Your task to perform on an android device: open chrome and create a bookmark for the current page Image 0: 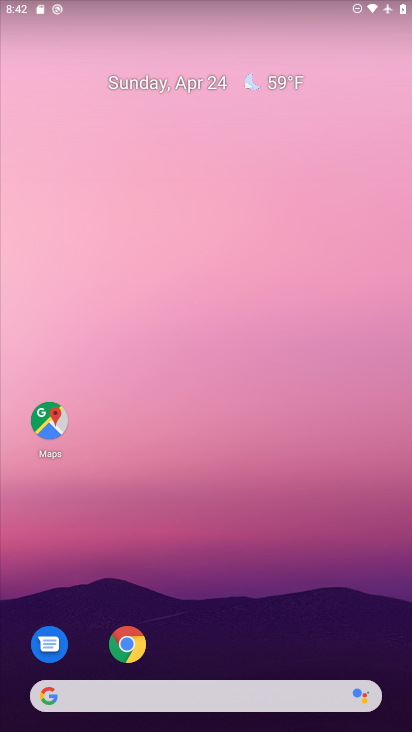
Step 0: click (186, 79)
Your task to perform on an android device: open chrome and create a bookmark for the current page Image 1: 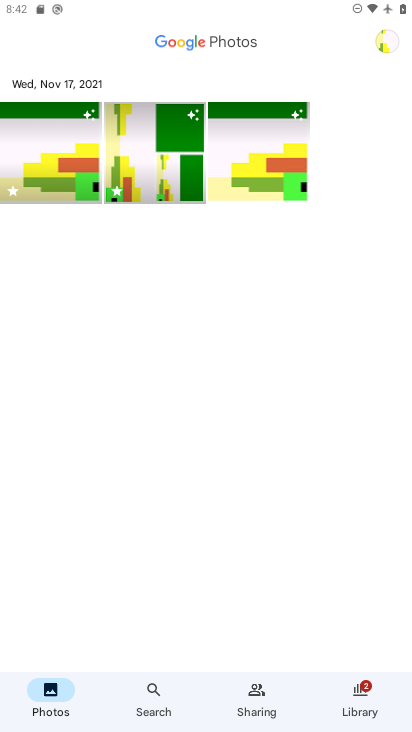
Step 1: press home button
Your task to perform on an android device: open chrome and create a bookmark for the current page Image 2: 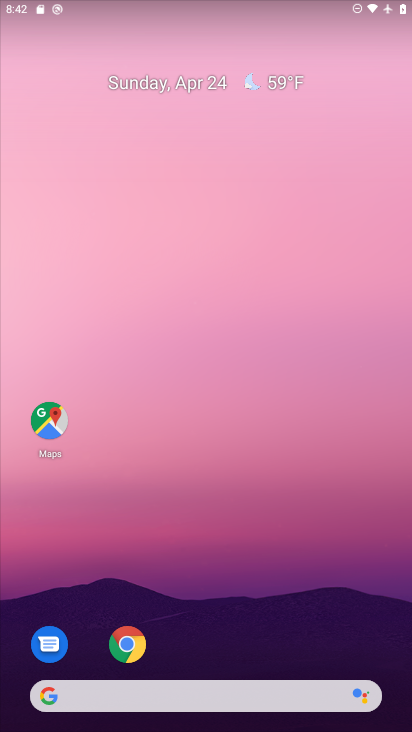
Step 2: drag from (192, 257) to (198, 99)
Your task to perform on an android device: open chrome and create a bookmark for the current page Image 3: 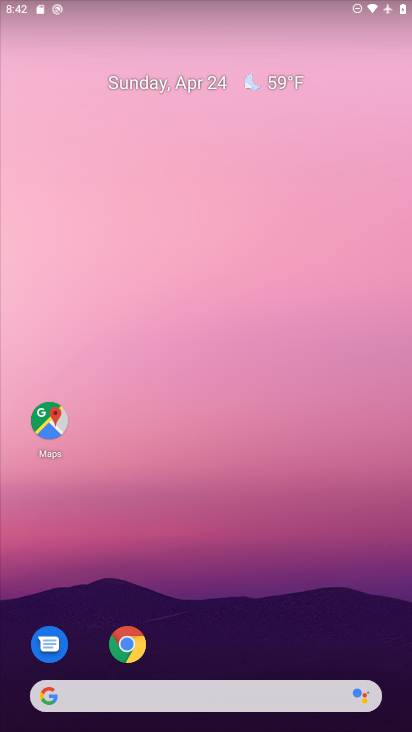
Step 3: drag from (237, 660) to (238, 59)
Your task to perform on an android device: open chrome and create a bookmark for the current page Image 4: 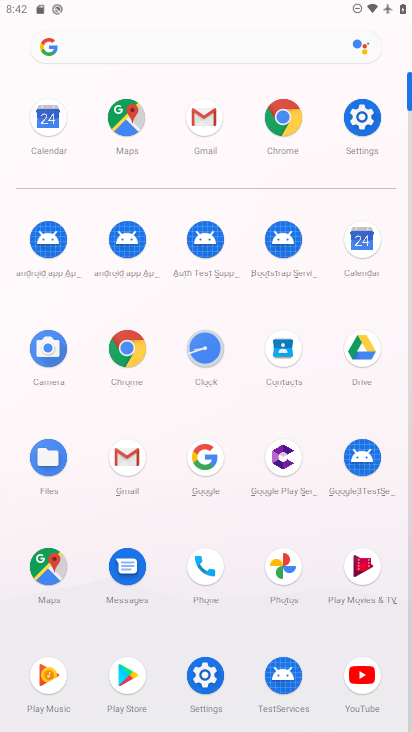
Step 4: click (282, 112)
Your task to perform on an android device: open chrome and create a bookmark for the current page Image 5: 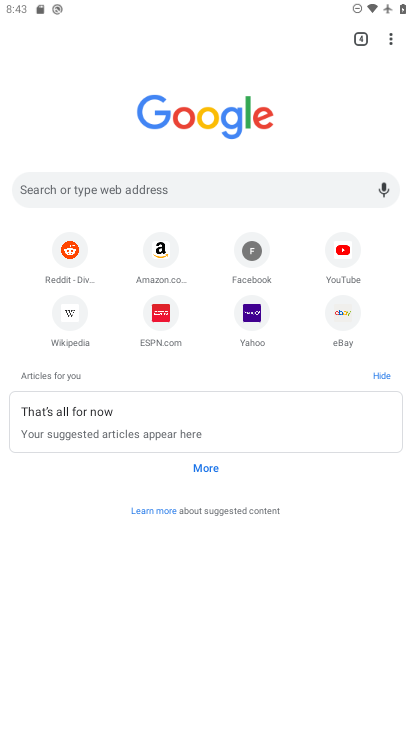
Step 5: click (387, 36)
Your task to perform on an android device: open chrome and create a bookmark for the current page Image 6: 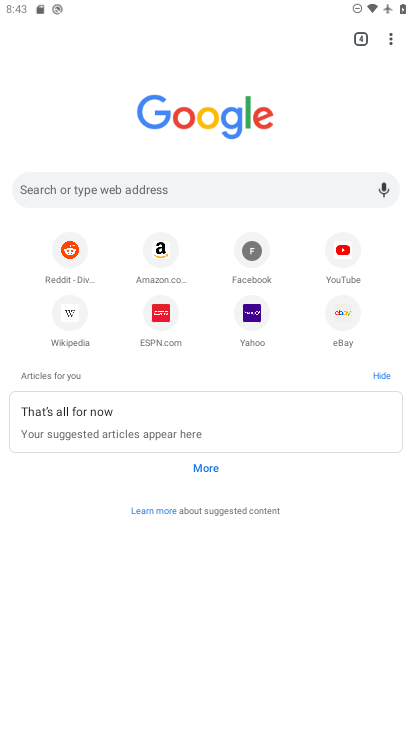
Step 6: click (393, 37)
Your task to perform on an android device: open chrome and create a bookmark for the current page Image 7: 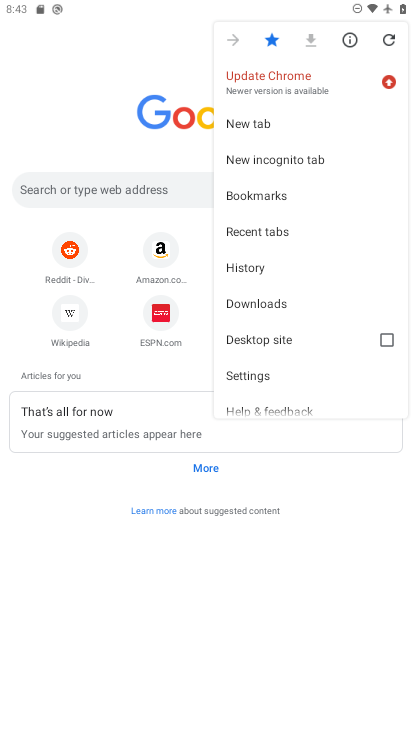
Step 7: click (261, 186)
Your task to perform on an android device: open chrome and create a bookmark for the current page Image 8: 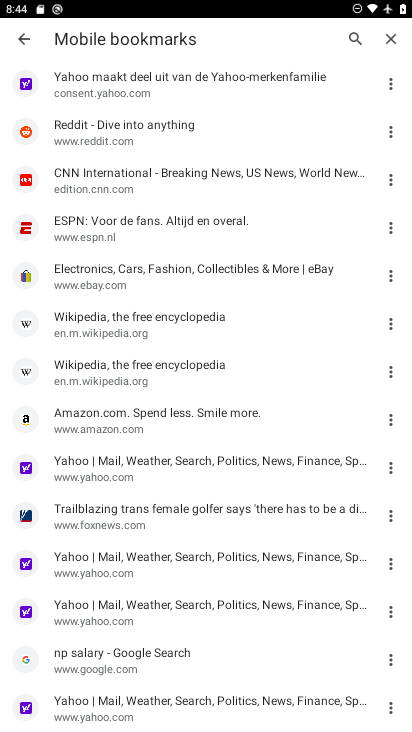
Step 8: task complete